Your task to perform on an android device: turn on javascript in the chrome app Image 0: 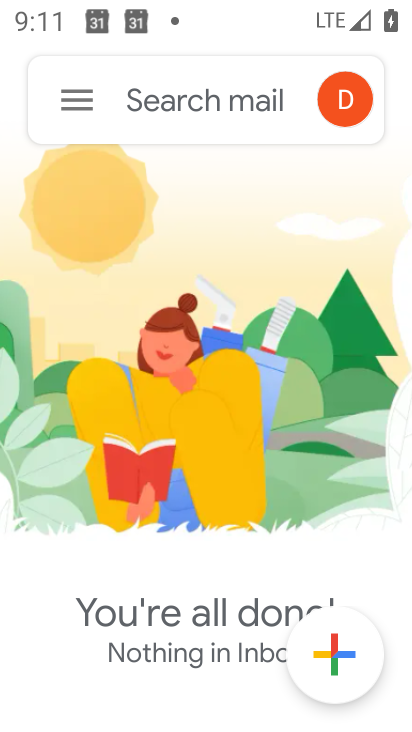
Step 0: press home button
Your task to perform on an android device: turn on javascript in the chrome app Image 1: 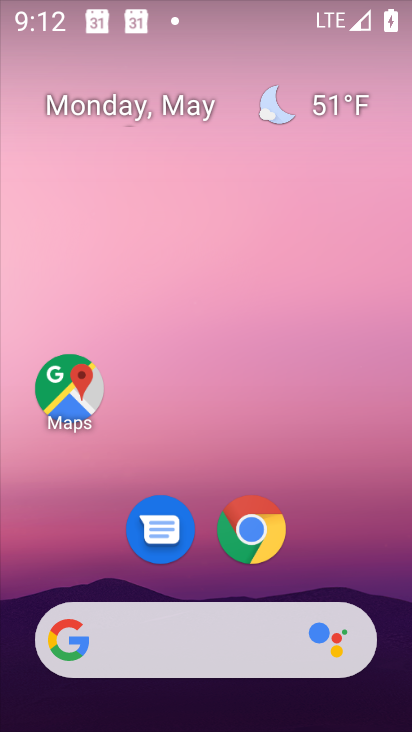
Step 1: click (249, 529)
Your task to perform on an android device: turn on javascript in the chrome app Image 2: 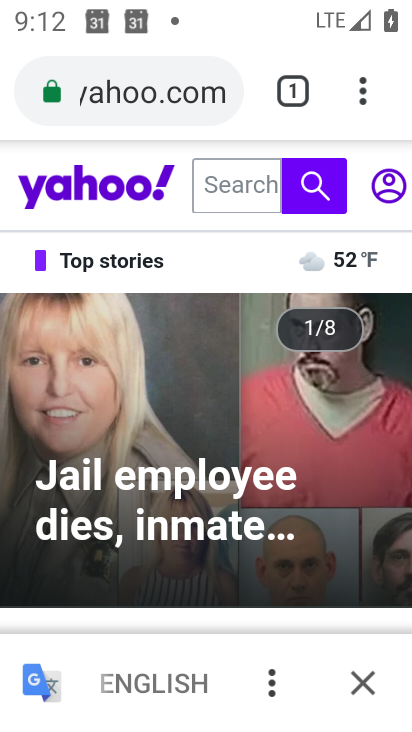
Step 2: click (364, 90)
Your task to perform on an android device: turn on javascript in the chrome app Image 3: 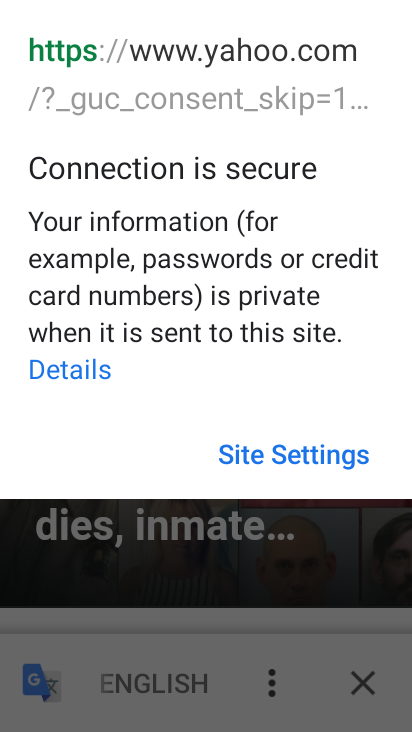
Step 3: press back button
Your task to perform on an android device: turn on javascript in the chrome app Image 4: 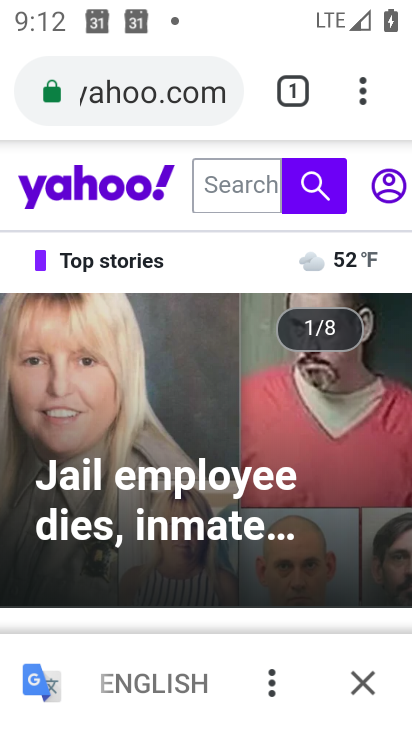
Step 4: click (350, 95)
Your task to perform on an android device: turn on javascript in the chrome app Image 5: 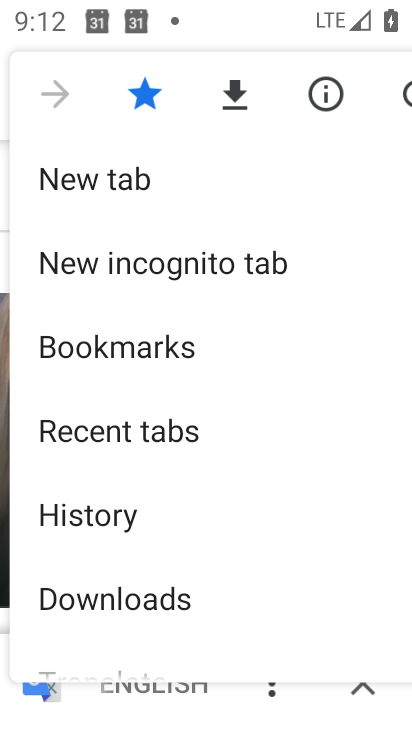
Step 5: drag from (117, 619) to (232, 211)
Your task to perform on an android device: turn on javascript in the chrome app Image 6: 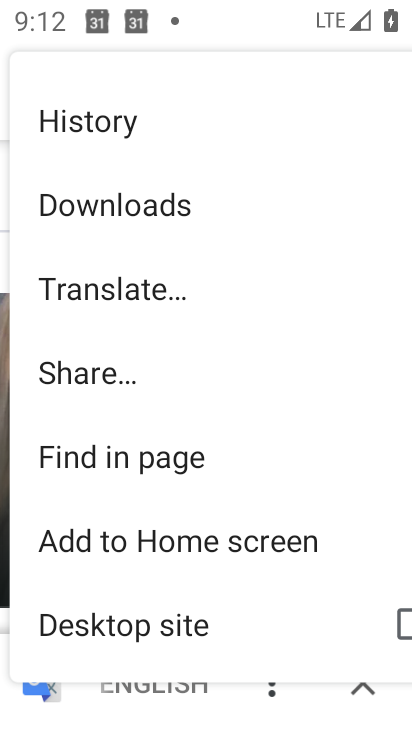
Step 6: drag from (97, 649) to (224, 101)
Your task to perform on an android device: turn on javascript in the chrome app Image 7: 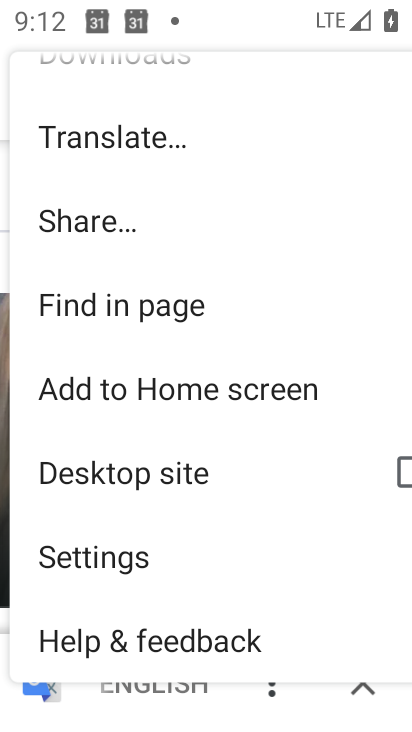
Step 7: click (92, 551)
Your task to perform on an android device: turn on javascript in the chrome app Image 8: 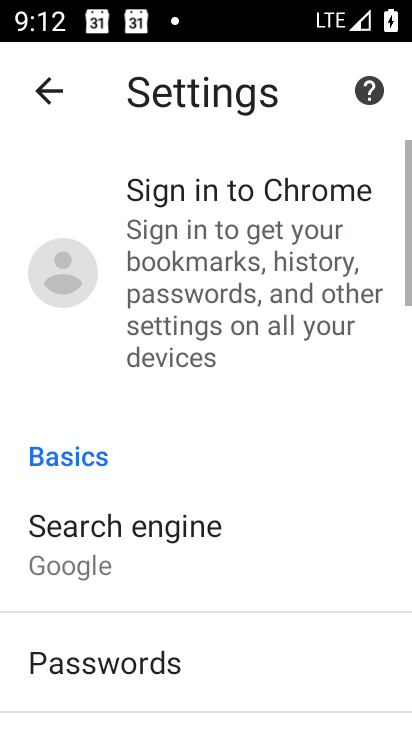
Step 8: drag from (103, 682) to (260, 226)
Your task to perform on an android device: turn on javascript in the chrome app Image 9: 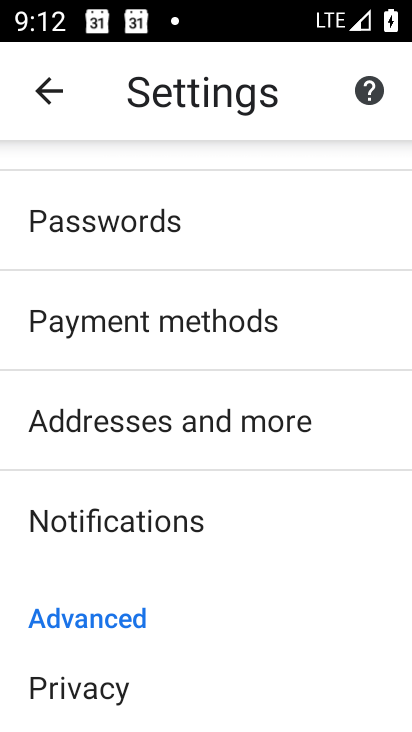
Step 9: drag from (117, 685) to (219, 216)
Your task to perform on an android device: turn on javascript in the chrome app Image 10: 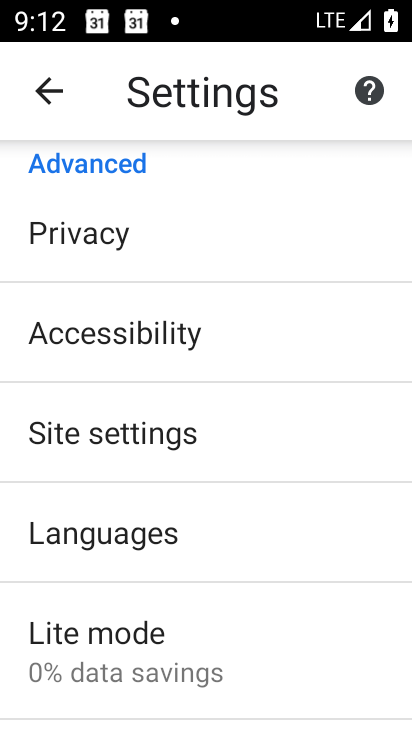
Step 10: click (90, 443)
Your task to perform on an android device: turn on javascript in the chrome app Image 11: 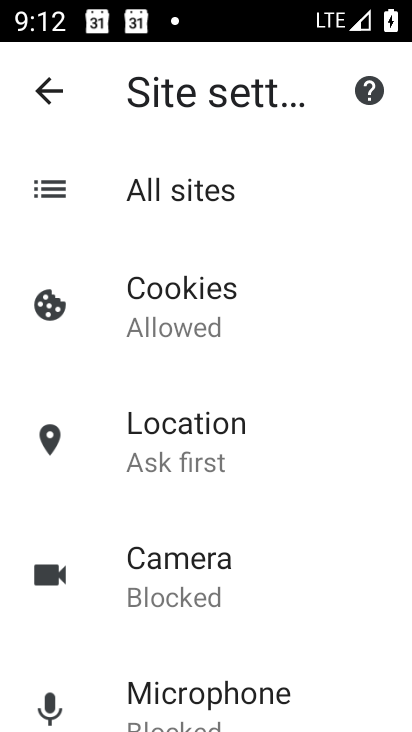
Step 11: drag from (201, 680) to (326, 273)
Your task to perform on an android device: turn on javascript in the chrome app Image 12: 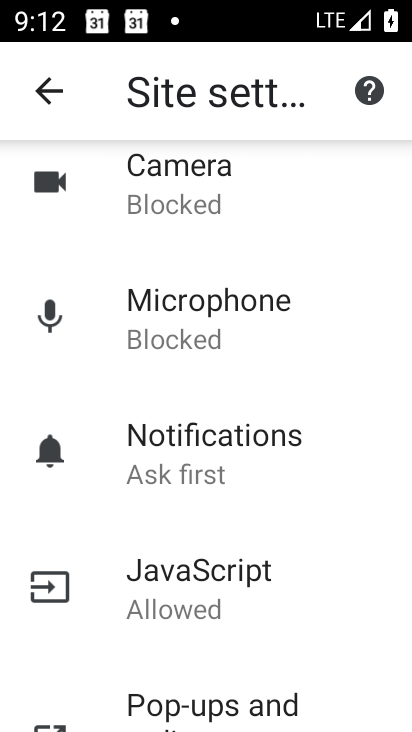
Step 12: click (227, 575)
Your task to perform on an android device: turn on javascript in the chrome app Image 13: 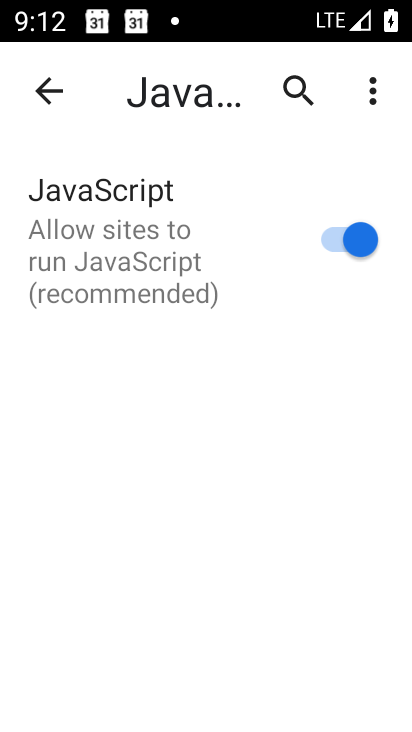
Step 13: task complete